Your task to perform on an android device: turn off notifications settings in the gmail app Image 0: 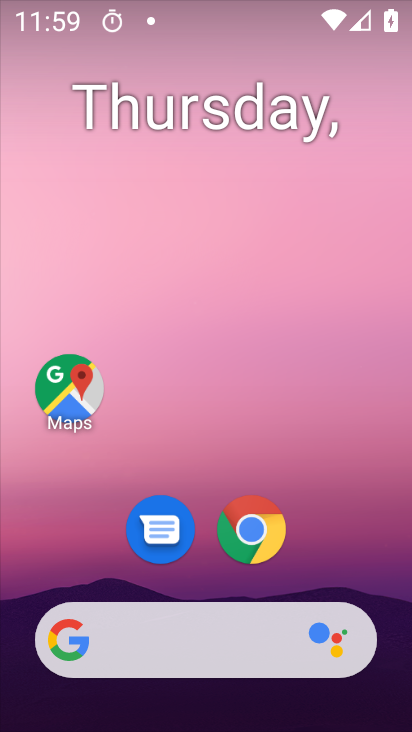
Step 0: drag from (202, 580) to (245, 209)
Your task to perform on an android device: turn off notifications settings in the gmail app Image 1: 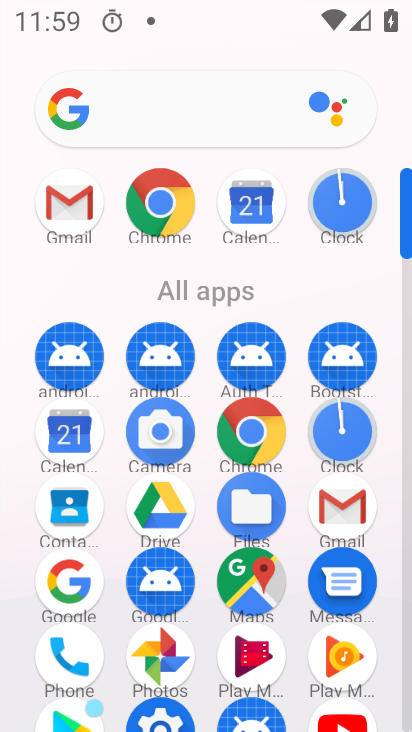
Step 1: click (349, 513)
Your task to perform on an android device: turn off notifications settings in the gmail app Image 2: 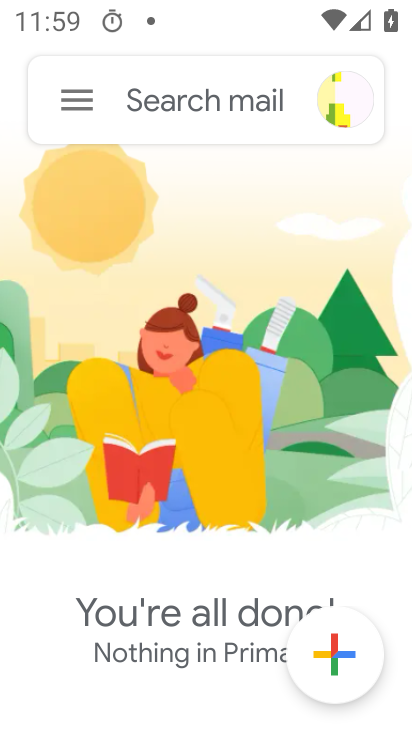
Step 2: click (87, 103)
Your task to perform on an android device: turn off notifications settings in the gmail app Image 3: 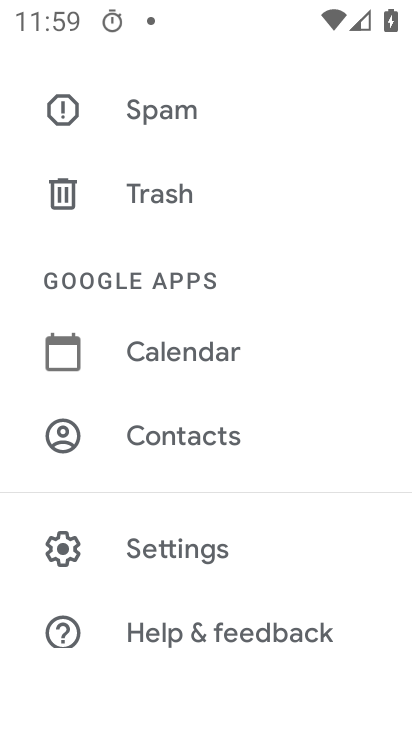
Step 3: click (166, 563)
Your task to perform on an android device: turn off notifications settings in the gmail app Image 4: 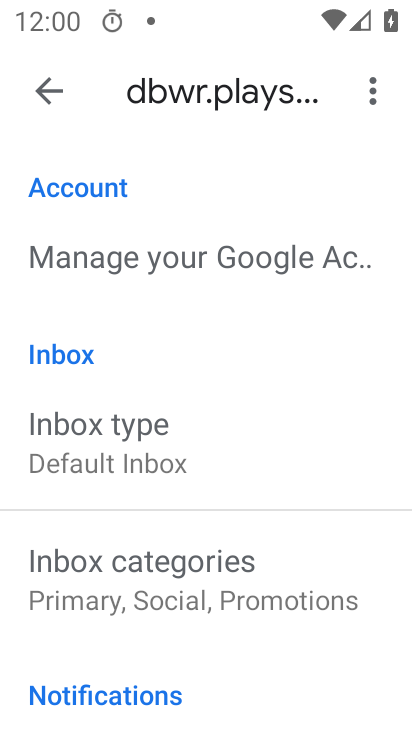
Step 4: click (48, 95)
Your task to perform on an android device: turn off notifications settings in the gmail app Image 5: 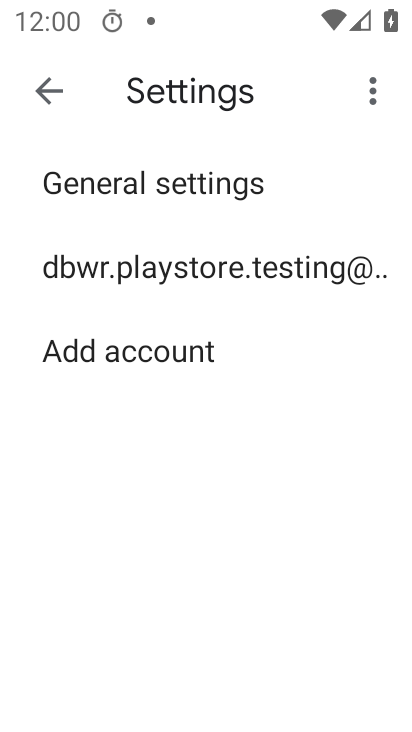
Step 5: click (139, 179)
Your task to perform on an android device: turn off notifications settings in the gmail app Image 6: 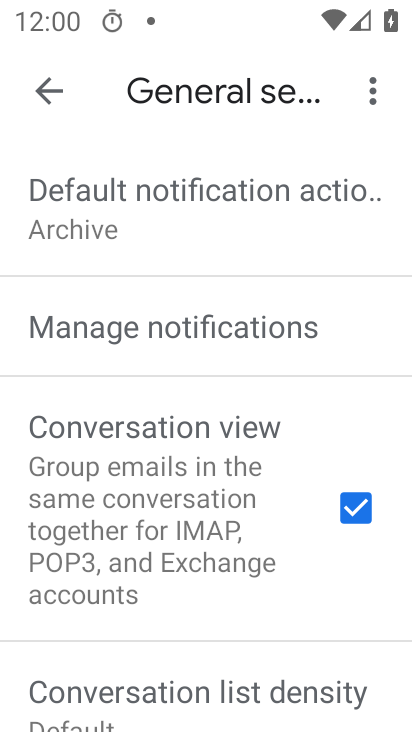
Step 6: click (145, 329)
Your task to perform on an android device: turn off notifications settings in the gmail app Image 7: 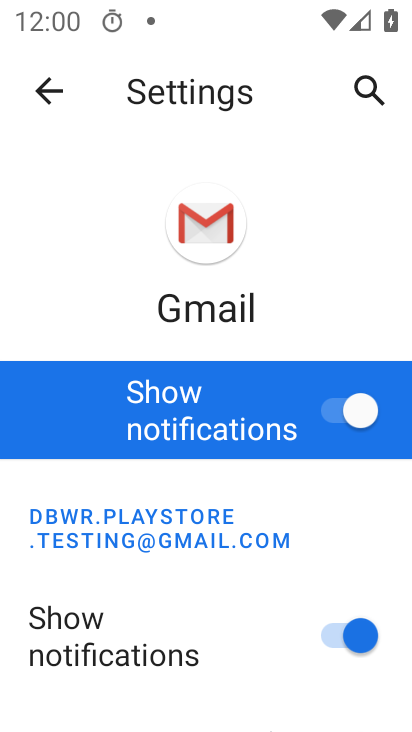
Step 7: click (324, 410)
Your task to perform on an android device: turn off notifications settings in the gmail app Image 8: 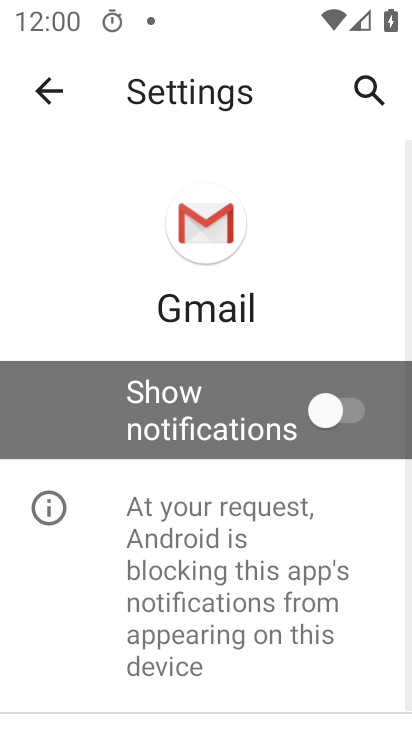
Step 8: task complete